Your task to perform on an android device: Open Reddit.com Image 0: 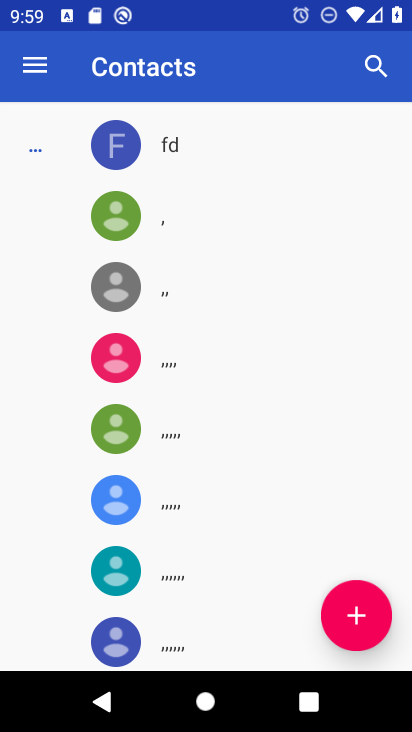
Step 0: press home button
Your task to perform on an android device: Open Reddit.com Image 1: 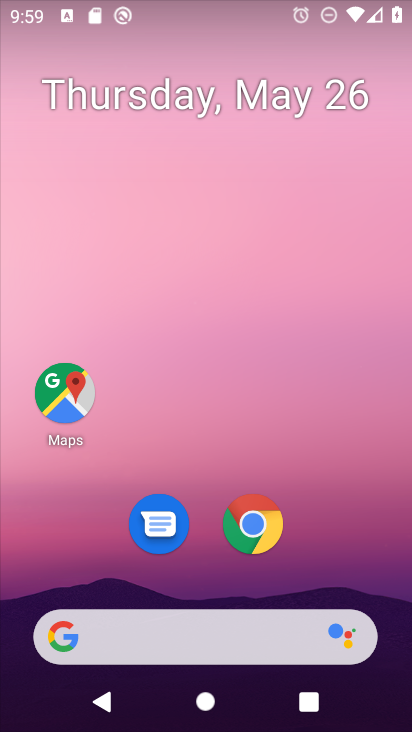
Step 1: click (261, 639)
Your task to perform on an android device: Open Reddit.com Image 2: 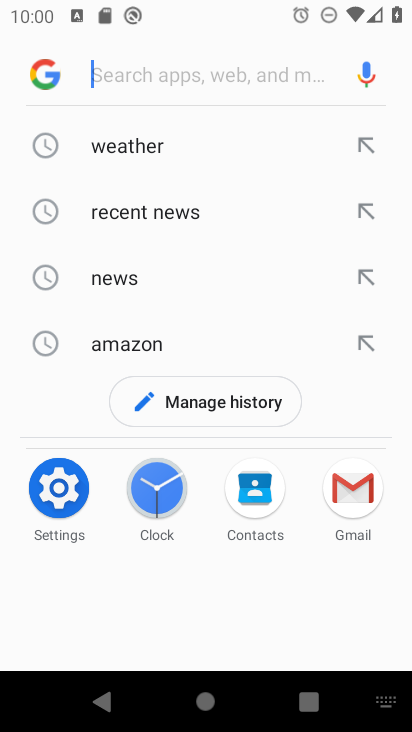
Step 2: type "reddit.com"
Your task to perform on an android device: Open Reddit.com Image 3: 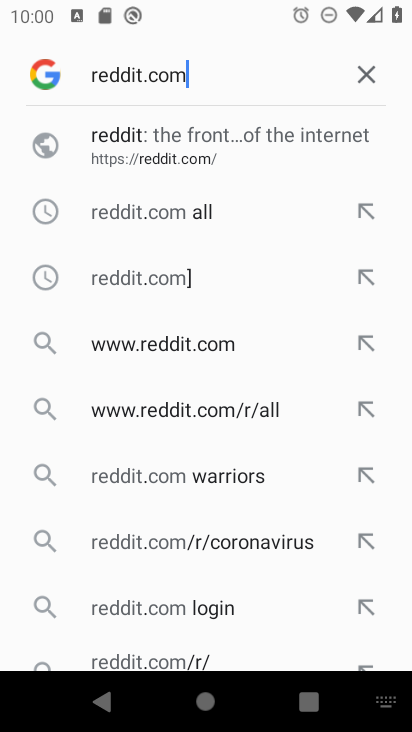
Step 3: click (128, 145)
Your task to perform on an android device: Open Reddit.com Image 4: 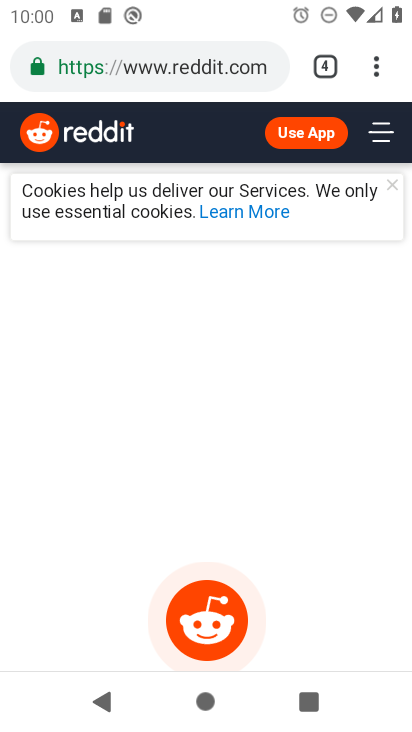
Step 4: task complete